Your task to perform on an android device: Check the news Image 0: 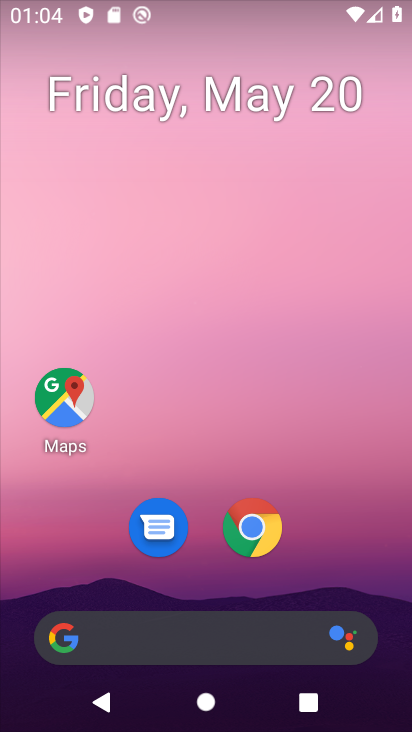
Step 0: press home button
Your task to perform on an android device: Check the news Image 1: 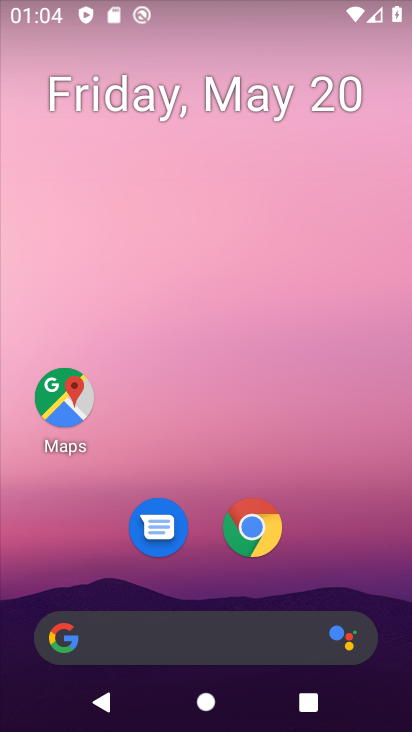
Step 1: task complete